Your task to perform on an android device: choose inbox layout in the gmail app Image 0: 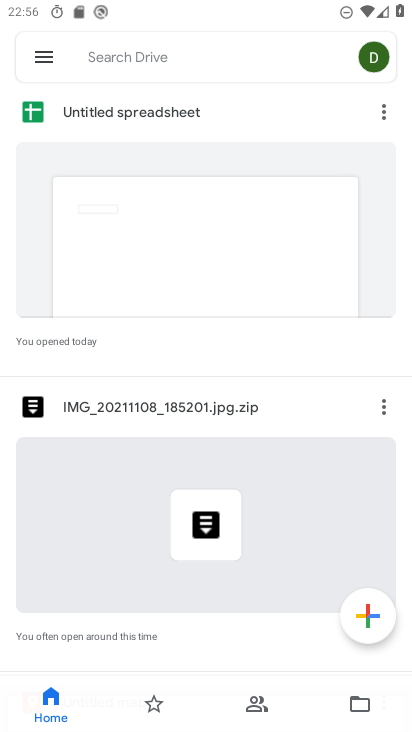
Step 0: press home button
Your task to perform on an android device: choose inbox layout in the gmail app Image 1: 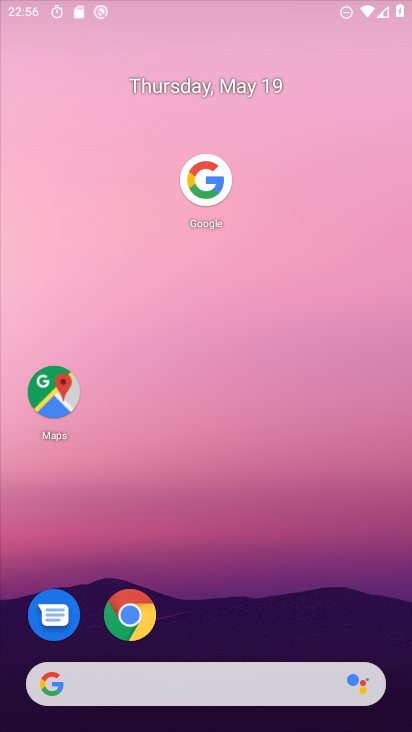
Step 1: drag from (236, 520) to (251, 52)
Your task to perform on an android device: choose inbox layout in the gmail app Image 2: 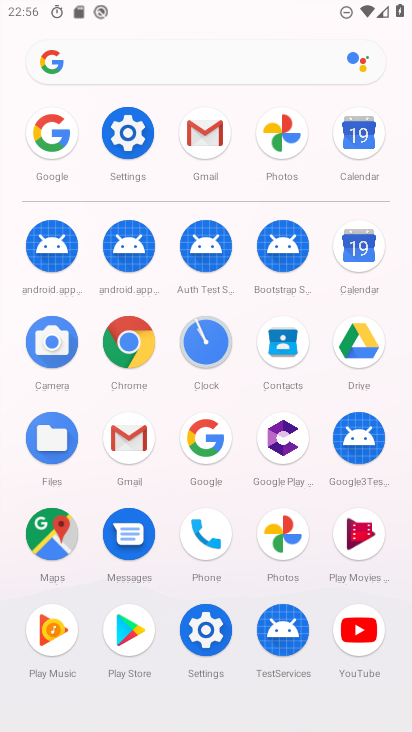
Step 2: click (205, 132)
Your task to perform on an android device: choose inbox layout in the gmail app Image 3: 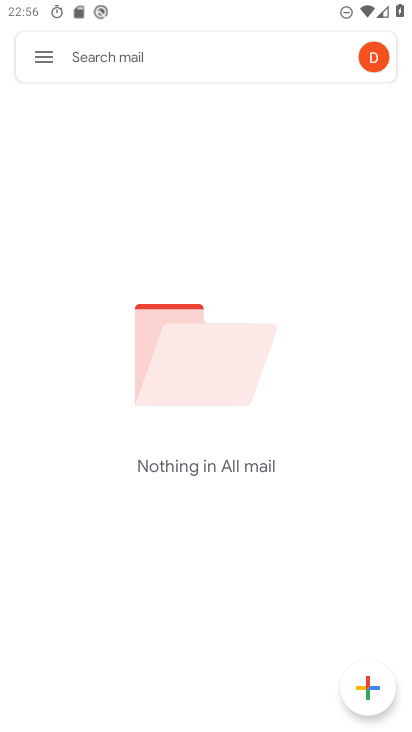
Step 3: click (45, 60)
Your task to perform on an android device: choose inbox layout in the gmail app Image 4: 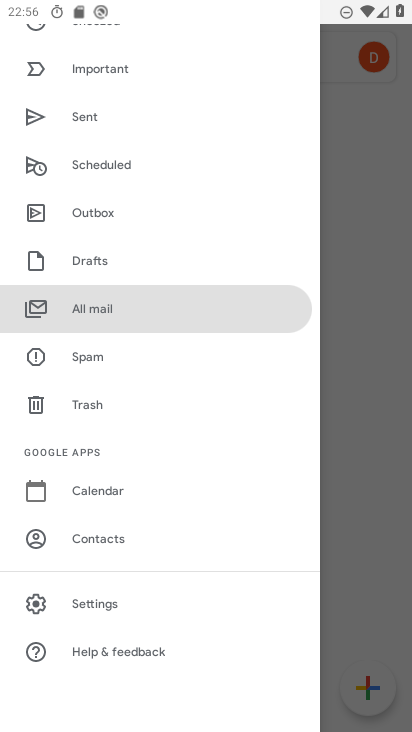
Step 4: click (97, 600)
Your task to perform on an android device: choose inbox layout in the gmail app Image 5: 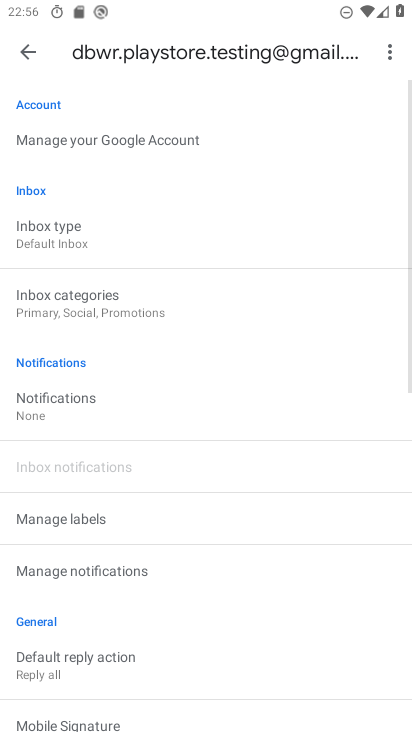
Step 5: click (103, 240)
Your task to perform on an android device: choose inbox layout in the gmail app Image 6: 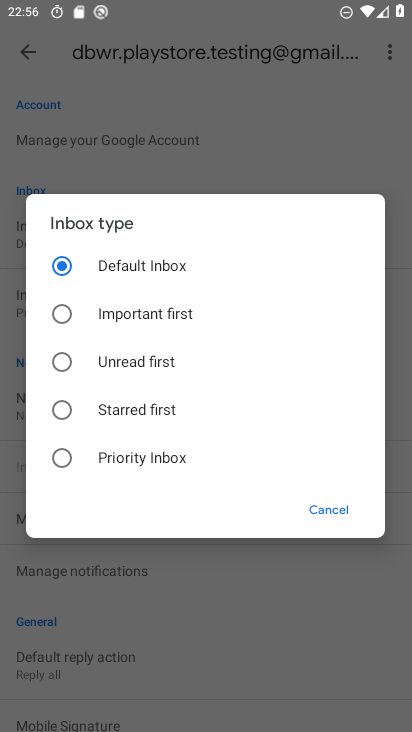
Step 6: click (54, 325)
Your task to perform on an android device: choose inbox layout in the gmail app Image 7: 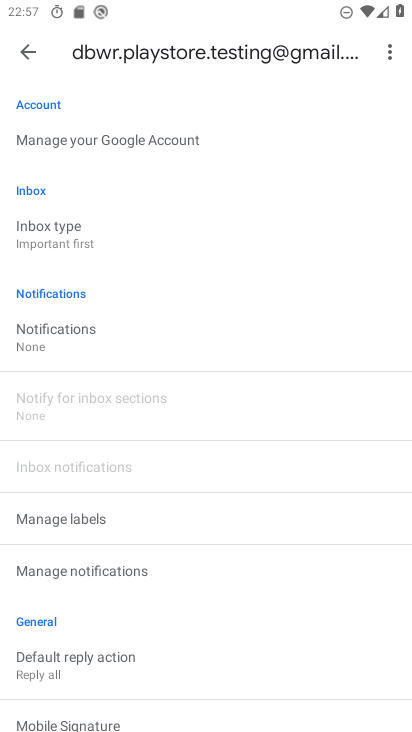
Step 7: task complete